Your task to perform on an android device: Go to Maps Image 0: 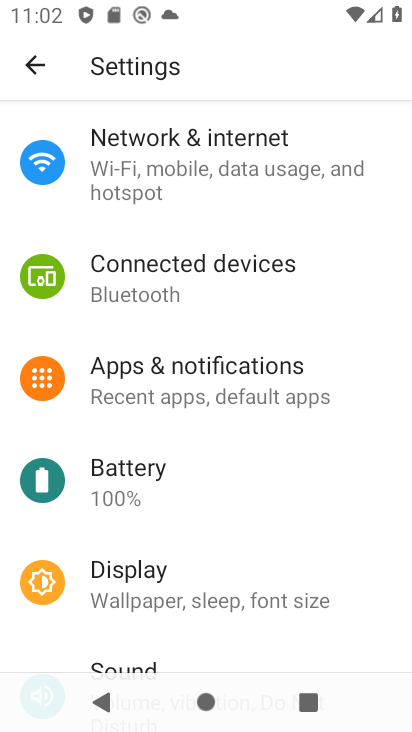
Step 0: press home button
Your task to perform on an android device: Go to Maps Image 1: 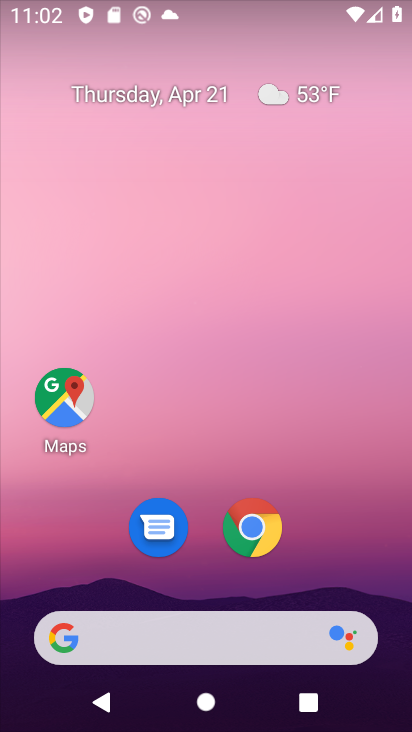
Step 1: drag from (349, 562) to (347, 118)
Your task to perform on an android device: Go to Maps Image 2: 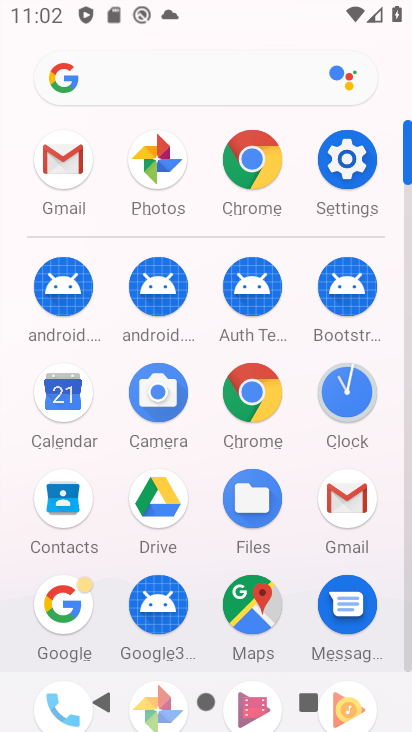
Step 2: drag from (395, 549) to (404, 236)
Your task to perform on an android device: Go to Maps Image 3: 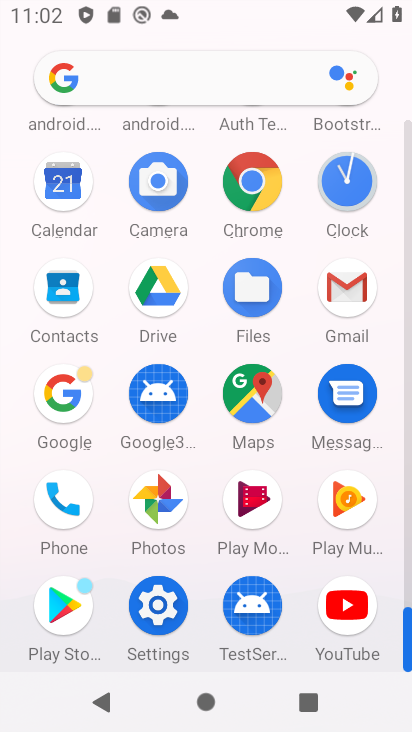
Step 3: click (256, 397)
Your task to perform on an android device: Go to Maps Image 4: 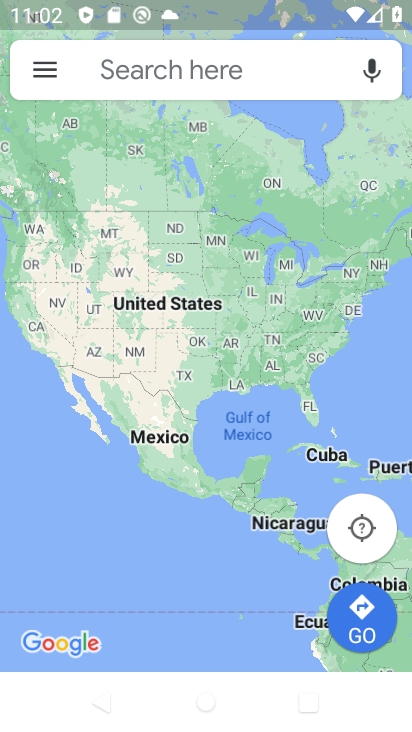
Step 4: task complete